Your task to perform on an android device: When is my next meeting? Image 0: 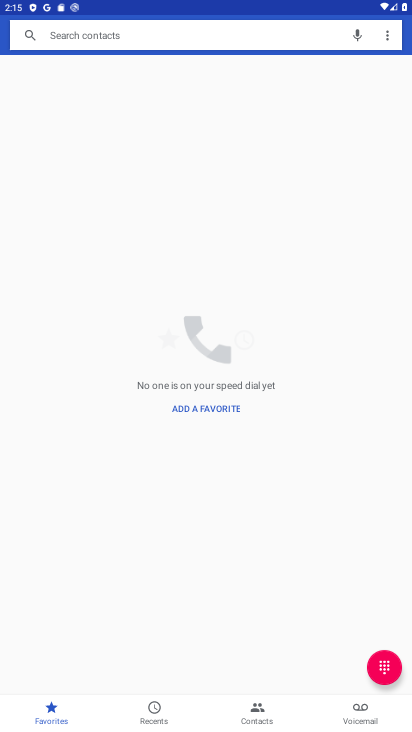
Step 0: press home button
Your task to perform on an android device: When is my next meeting? Image 1: 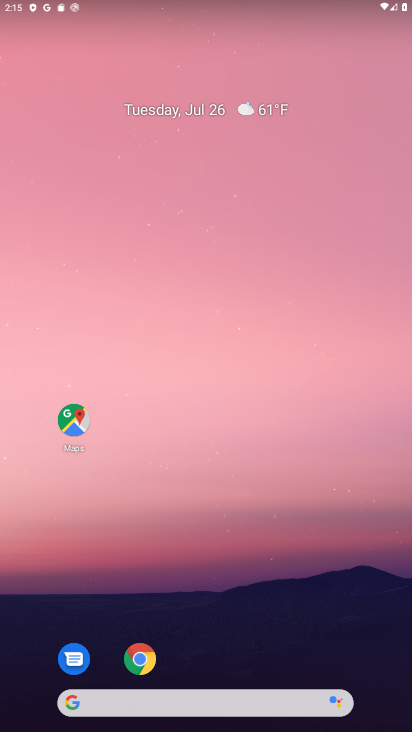
Step 1: drag from (398, 665) to (322, 198)
Your task to perform on an android device: When is my next meeting? Image 2: 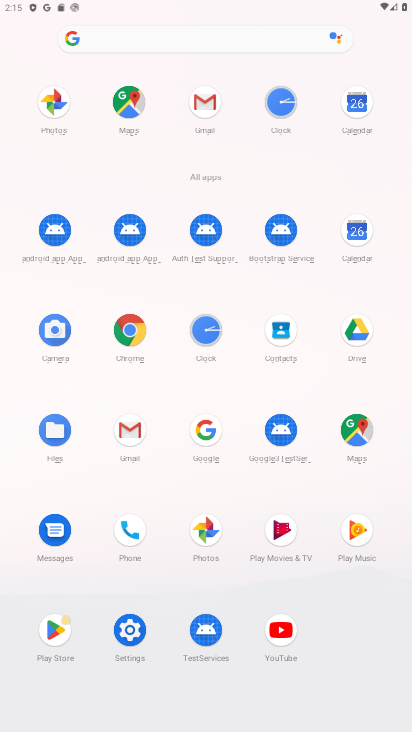
Step 2: click (349, 233)
Your task to perform on an android device: When is my next meeting? Image 3: 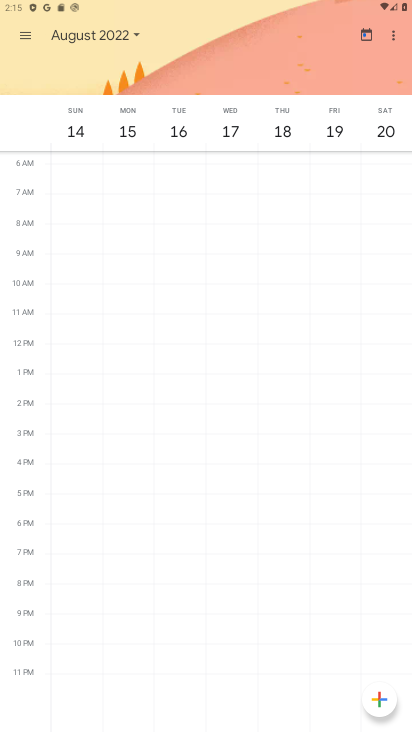
Step 3: click (16, 35)
Your task to perform on an android device: When is my next meeting? Image 4: 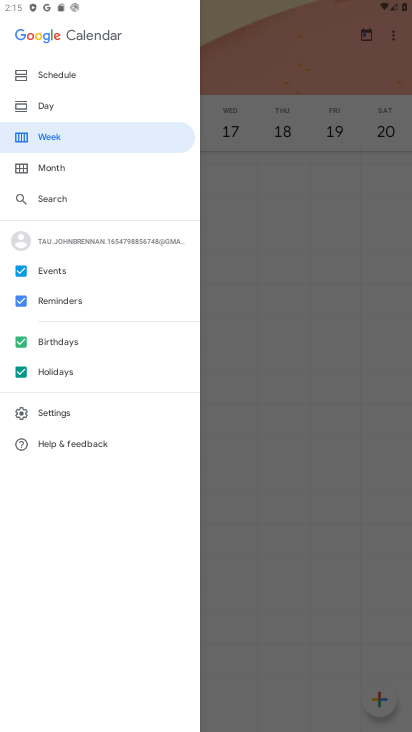
Step 4: click (14, 369)
Your task to perform on an android device: When is my next meeting? Image 5: 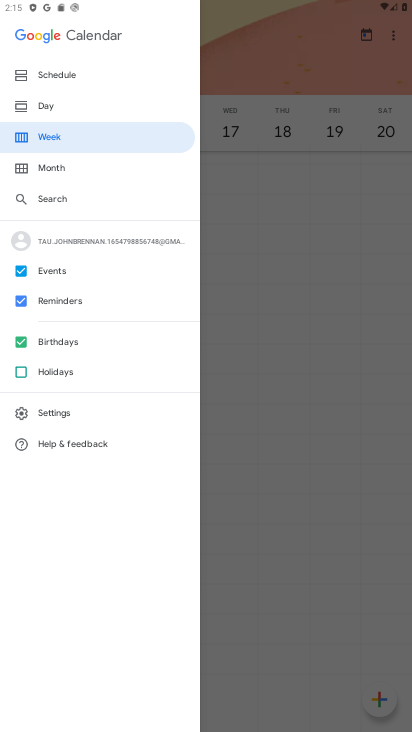
Step 5: click (22, 343)
Your task to perform on an android device: When is my next meeting? Image 6: 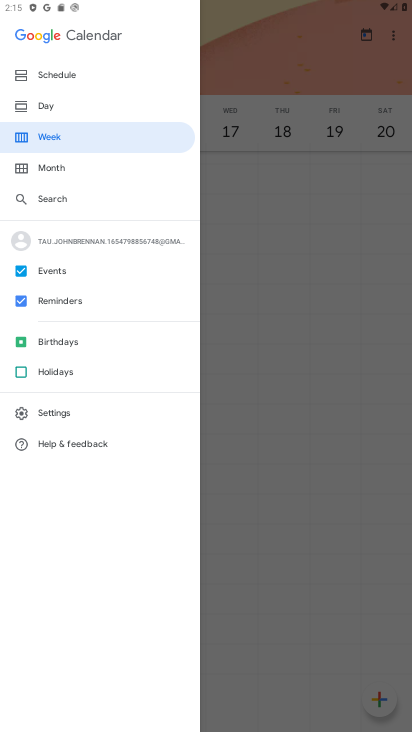
Step 6: click (20, 298)
Your task to perform on an android device: When is my next meeting? Image 7: 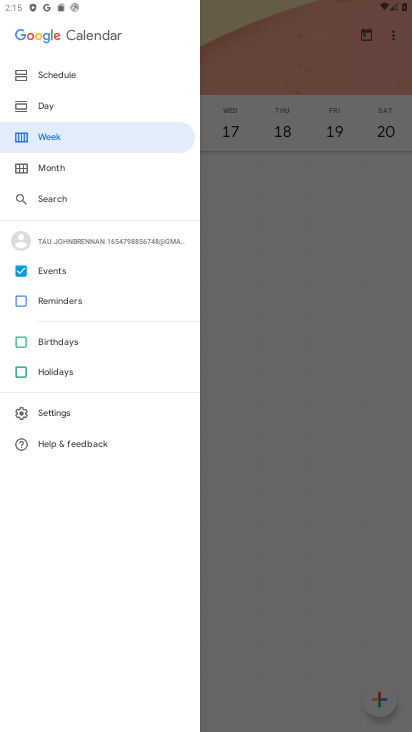
Step 7: click (59, 68)
Your task to perform on an android device: When is my next meeting? Image 8: 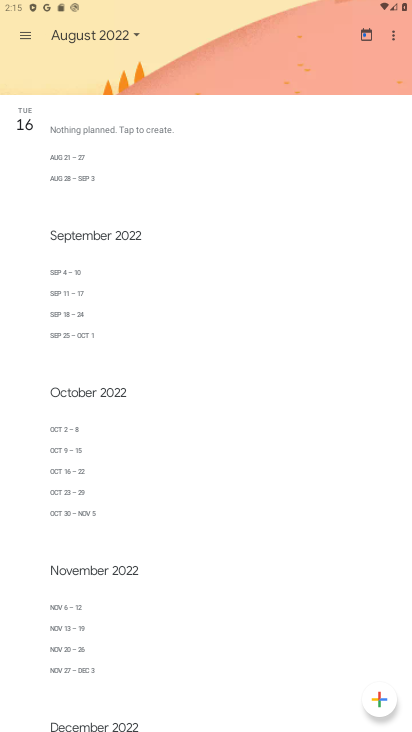
Step 8: task complete